Your task to perform on an android device: open wifi settings Image 0: 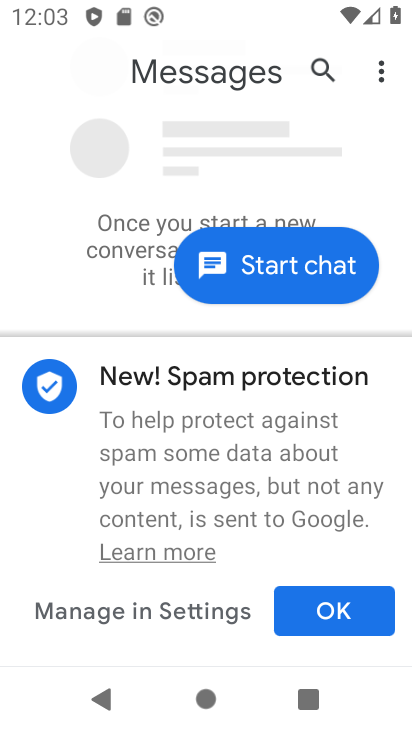
Step 0: click (199, 567)
Your task to perform on an android device: open wifi settings Image 1: 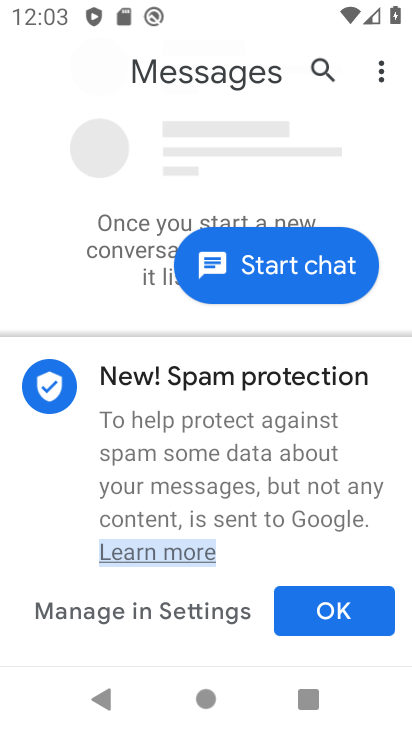
Step 1: press home button
Your task to perform on an android device: open wifi settings Image 2: 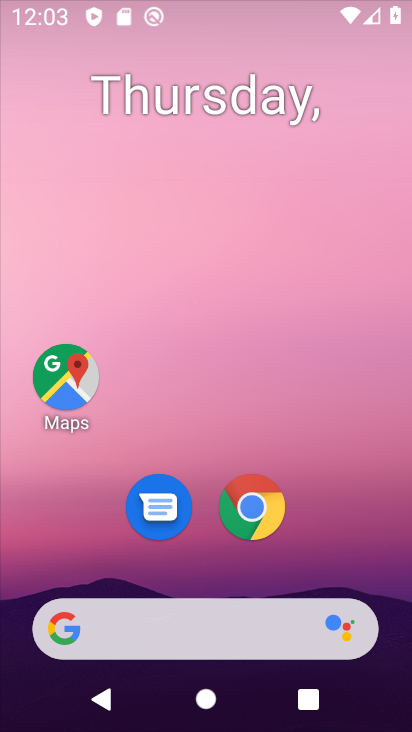
Step 2: drag from (226, 611) to (331, 177)
Your task to perform on an android device: open wifi settings Image 3: 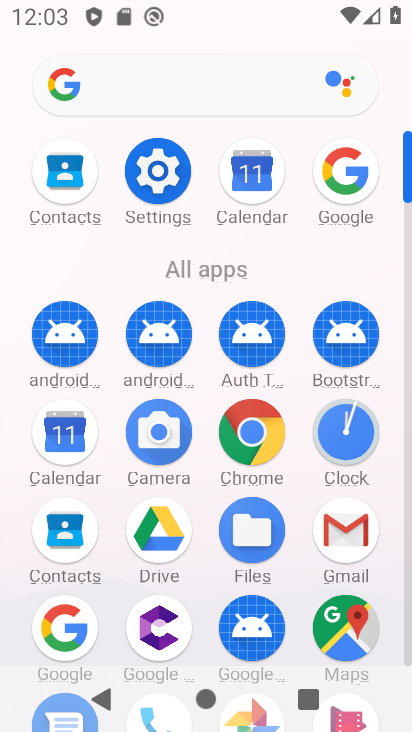
Step 3: click (154, 160)
Your task to perform on an android device: open wifi settings Image 4: 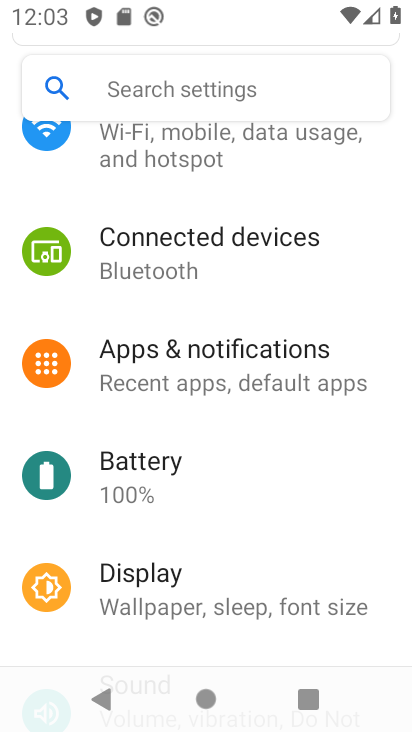
Step 4: drag from (154, 160) to (48, 454)
Your task to perform on an android device: open wifi settings Image 5: 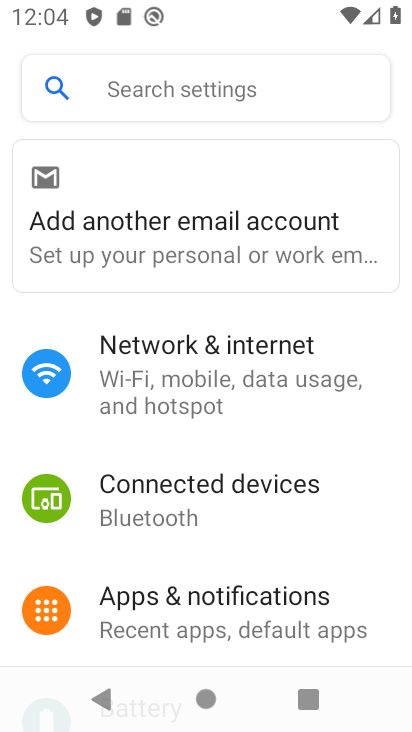
Step 5: click (252, 403)
Your task to perform on an android device: open wifi settings Image 6: 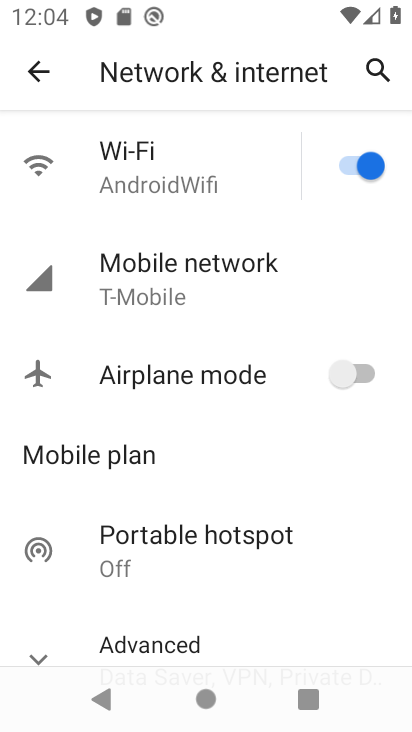
Step 6: click (199, 202)
Your task to perform on an android device: open wifi settings Image 7: 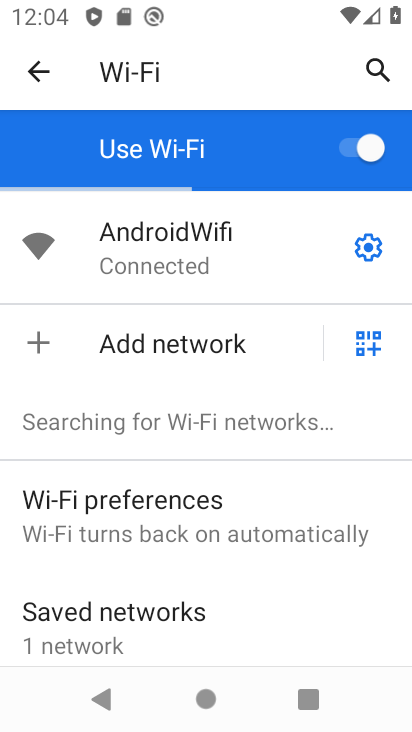
Step 7: task complete